Your task to perform on an android device: Search for Mexican restaurants on Maps Image 0: 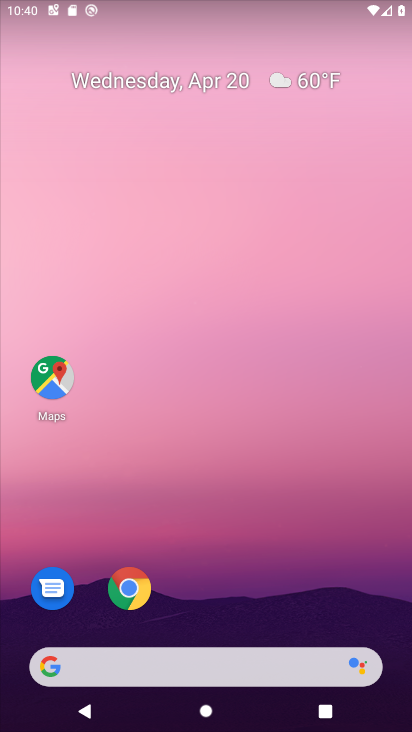
Step 0: click (48, 381)
Your task to perform on an android device: Search for Mexican restaurants on Maps Image 1: 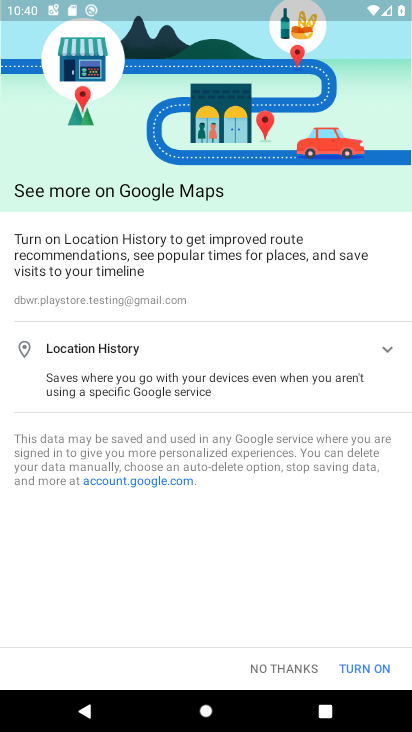
Step 1: click (361, 665)
Your task to perform on an android device: Search for Mexican restaurants on Maps Image 2: 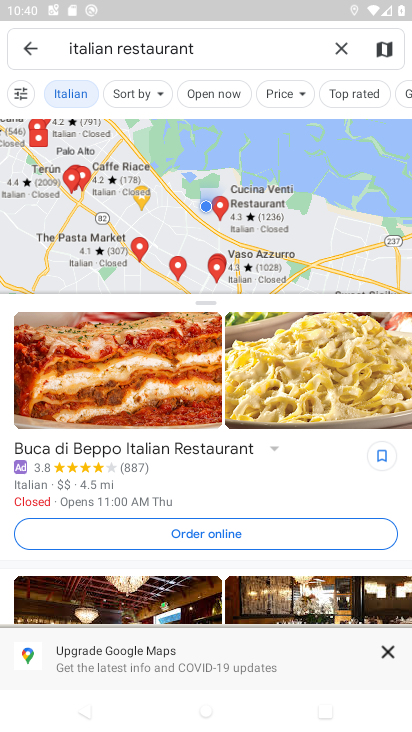
Step 2: click (341, 46)
Your task to perform on an android device: Search for Mexican restaurants on Maps Image 3: 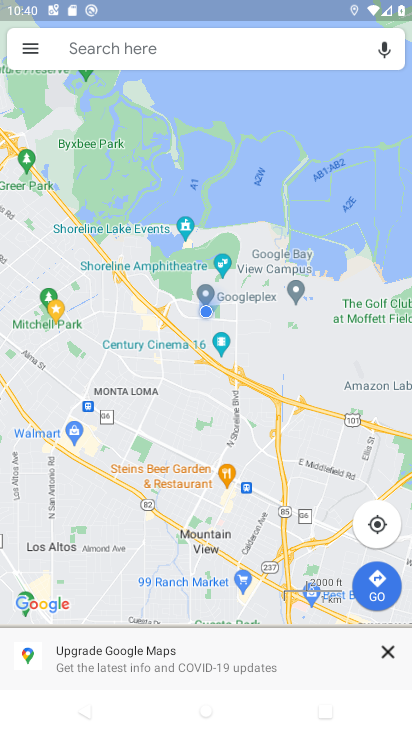
Step 3: click (176, 37)
Your task to perform on an android device: Search for Mexican restaurants on Maps Image 4: 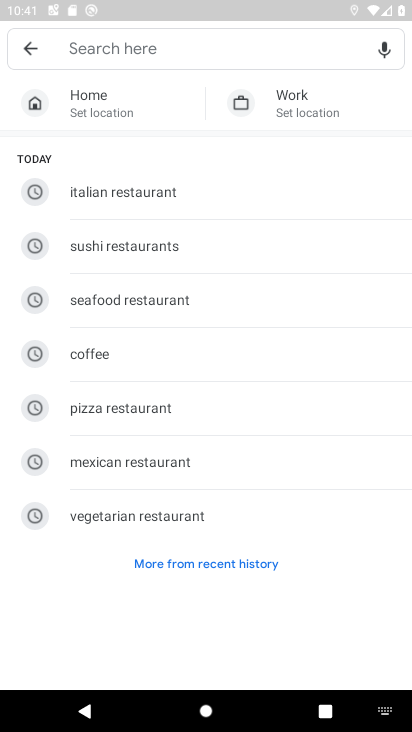
Step 4: click (123, 465)
Your task to perform on an android device: Search for Mexican restaurants on Maps Image 5: 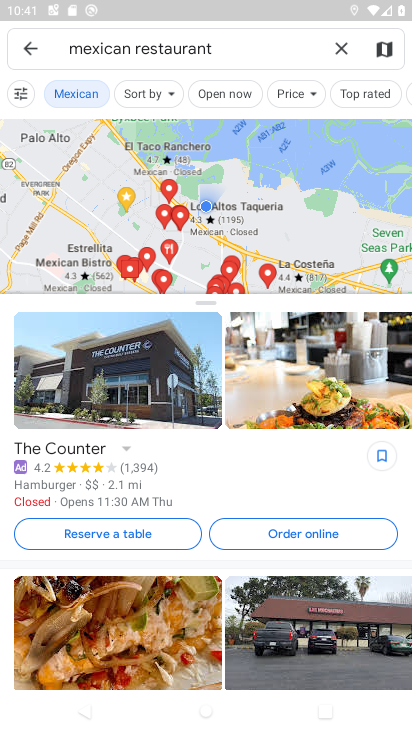
Step 5: task complete